Your task to perform on an android device: Turn on the flashlight Image 0: 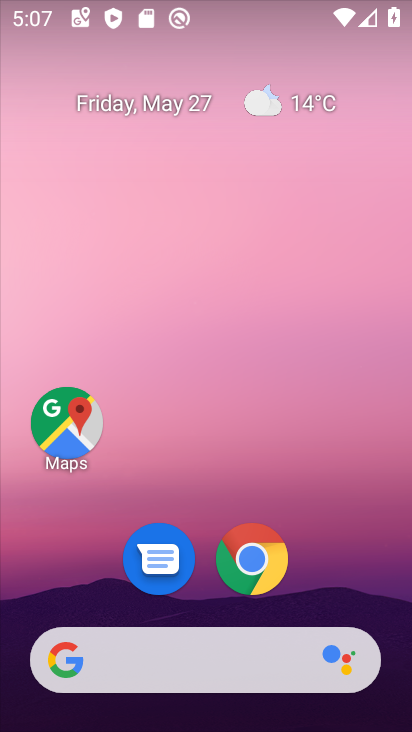
Step 0: task impossible